Your task to perform on an android device: open sync settings in chrome Image 0: 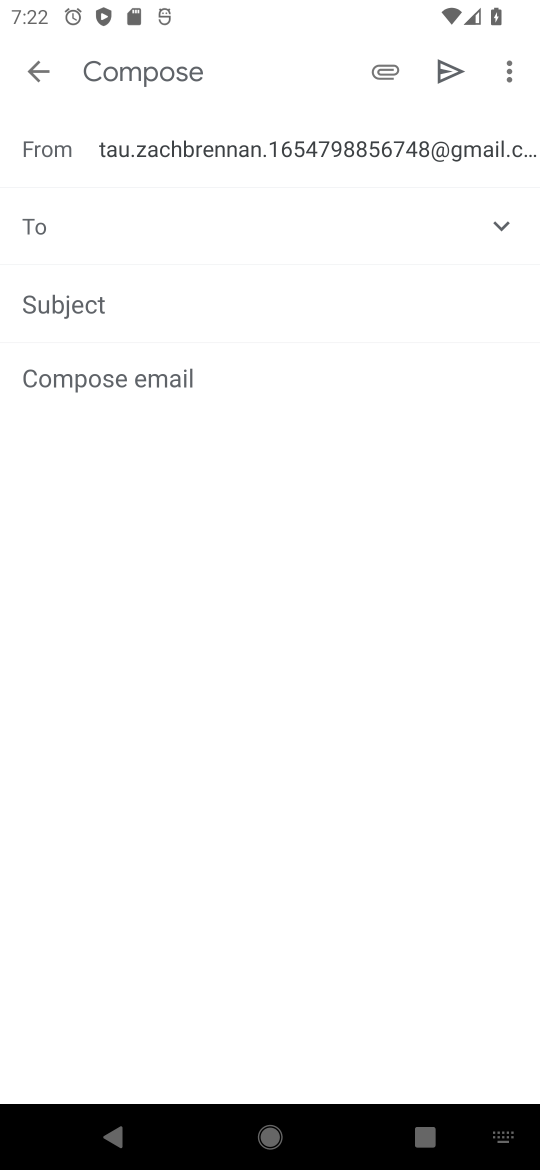
Step 0: press home button
Your task to perform on an android device: open sync settings in chrome Image 1: 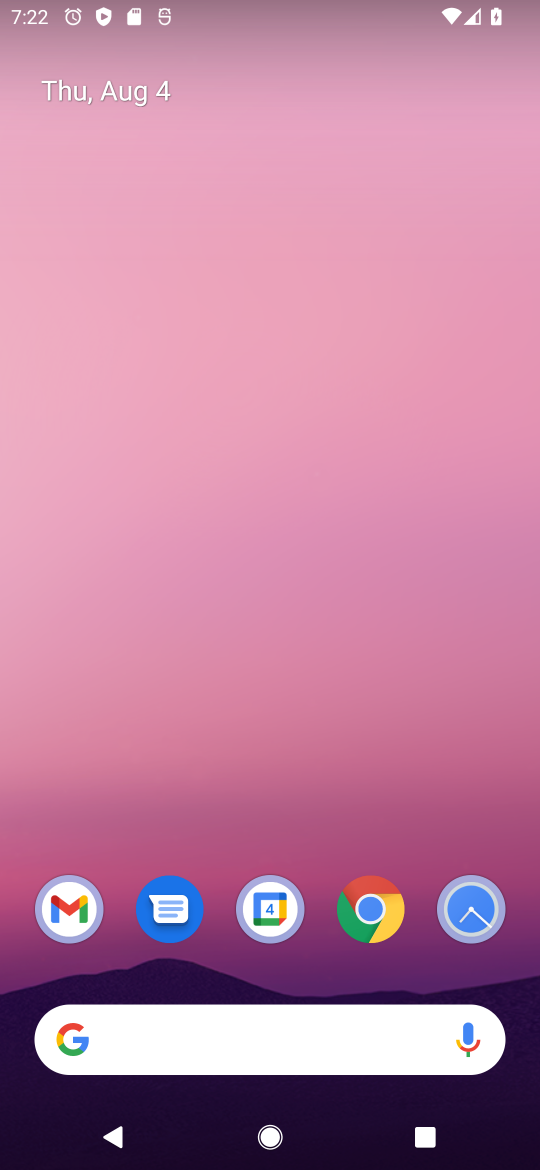
Step 1: drag from (360, 775) to (237, 58)
Your task to perform on an android device: open sync settings in chrome Image 2: 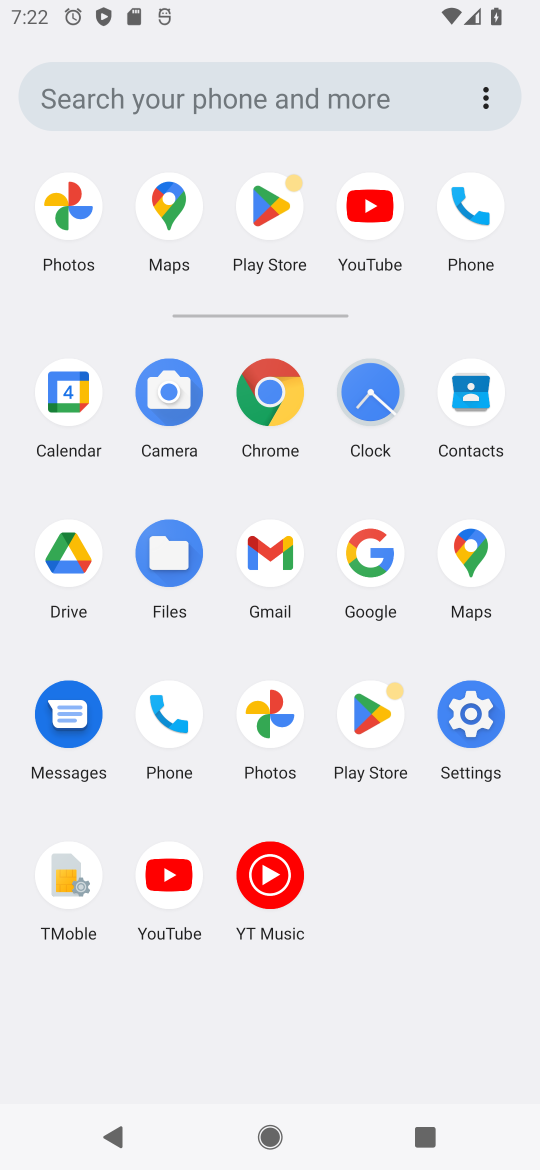
Step 2: click (274, 405)
Your task to perform on an android device: open sync settings in chrome Image 3: 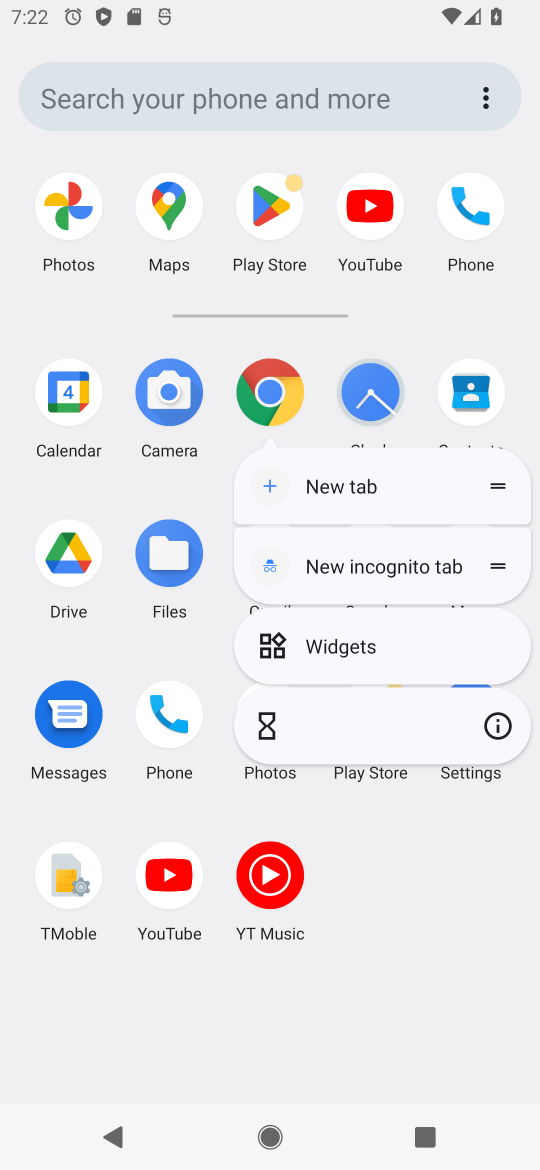
Step 3: click (248, 381)
Your task to perform on an android device: open sync settings in chrome Image 4: 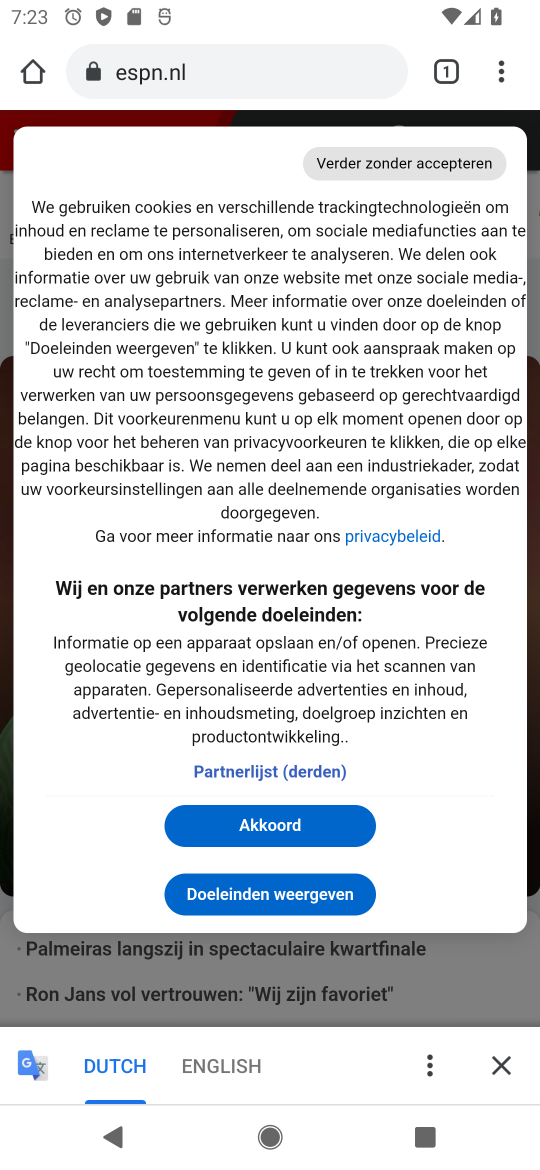
Step 4: drag from (494, 56) to (296, 991)
Your task to perform on an android device: open sync settings in chrome Image 5: 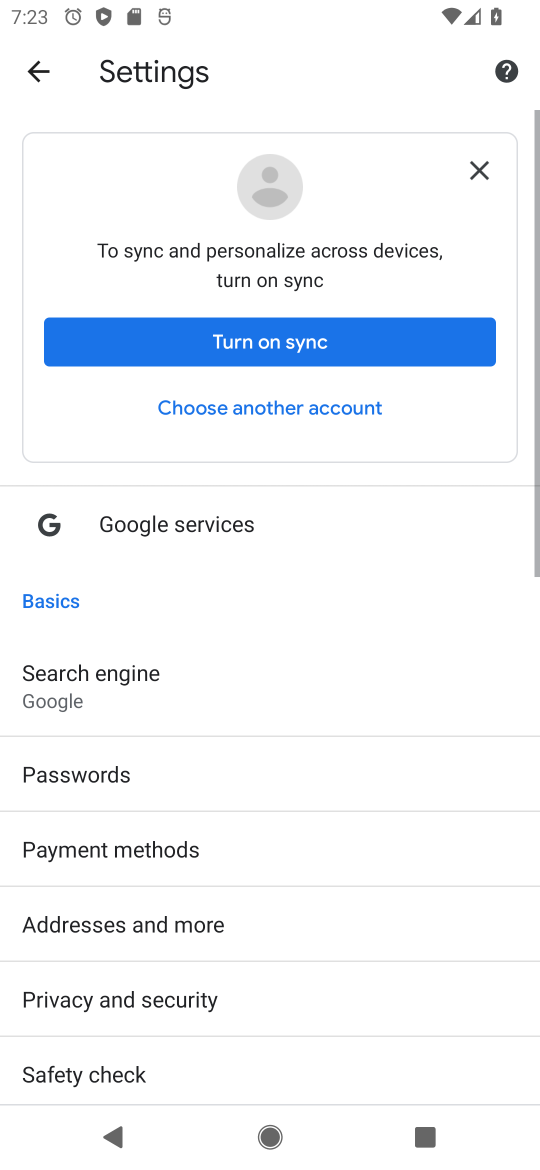
Step 5: drag from (295, 984) to (255, 390)
Your task to perform on an android device: open sync settings in chrome Image 6: 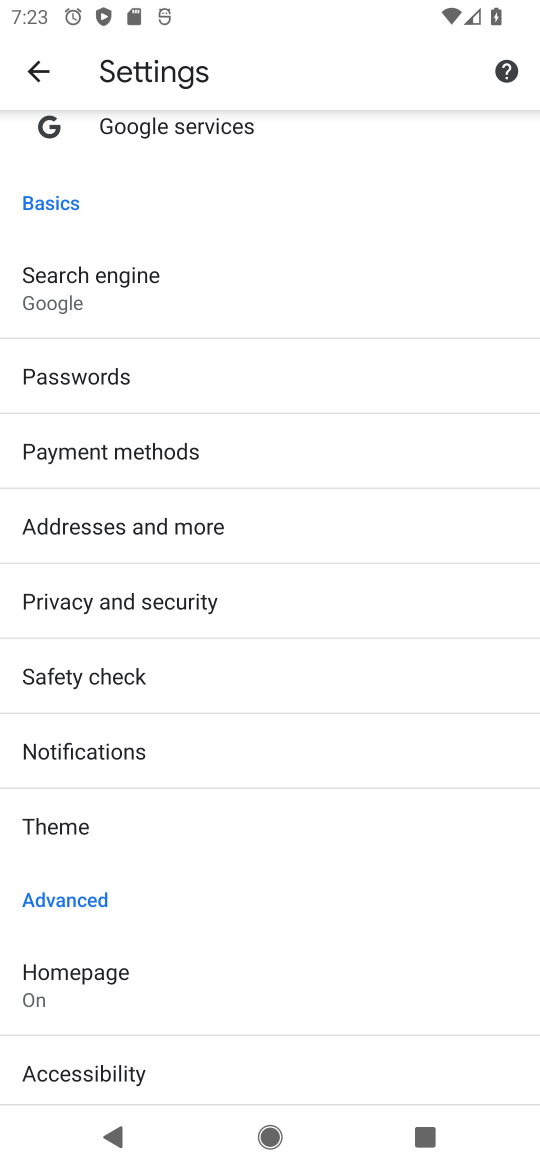
Step 6: drag from (204, 872) to (275, 270)
Your task to perform on an android device: open sync settings in chrome Image 7: 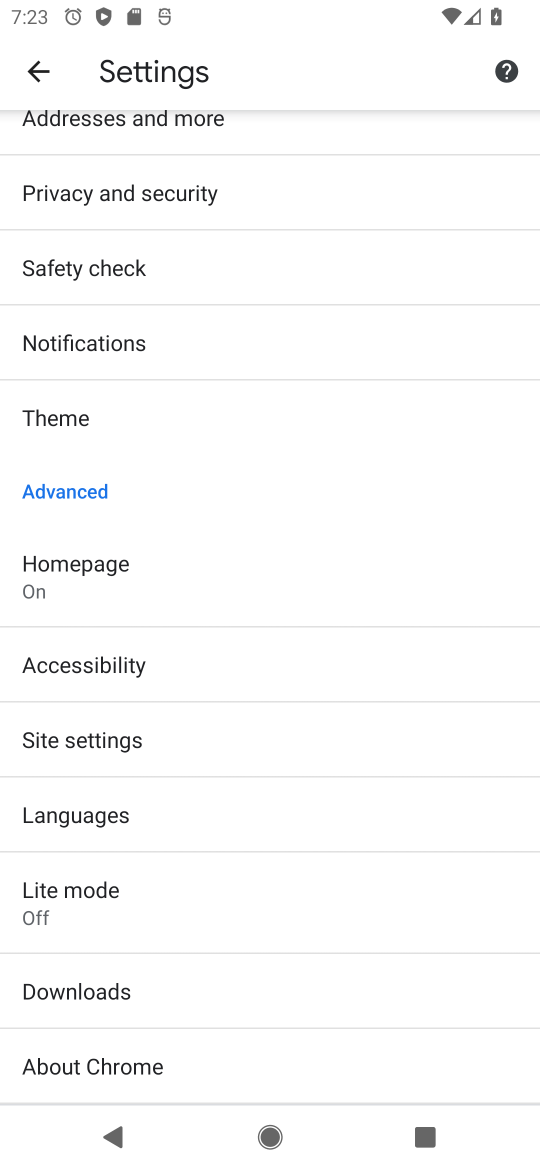
Step 7: click (96, 753)
Your task to perform on an android device: open sync settings in chrome Image 8: 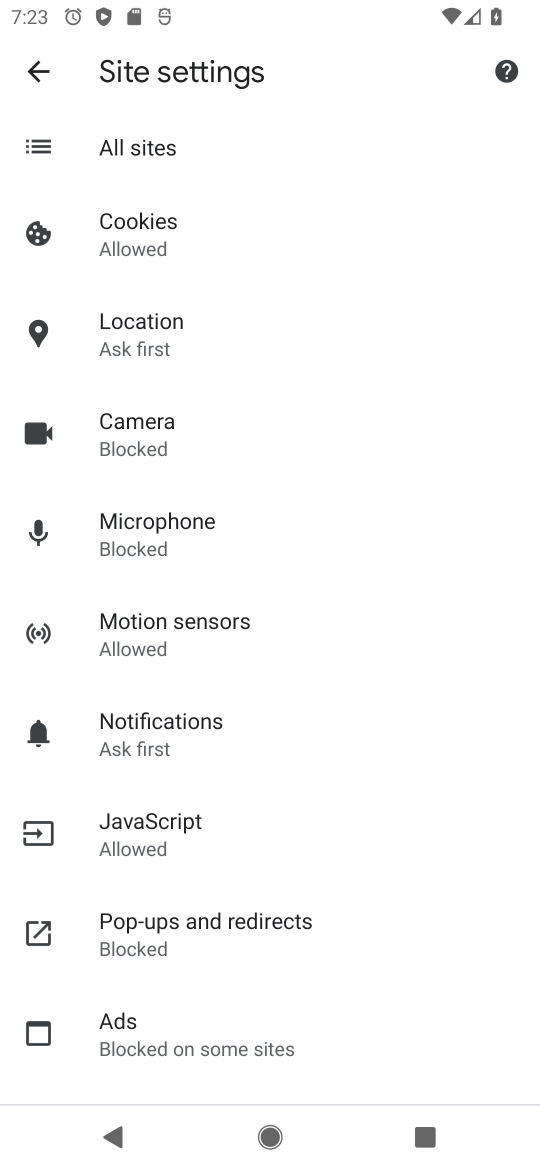
Step 8: drag from (244, 922) to (274, 368)
Your task to perform on an android device: open sync settings in chrome Image 9: 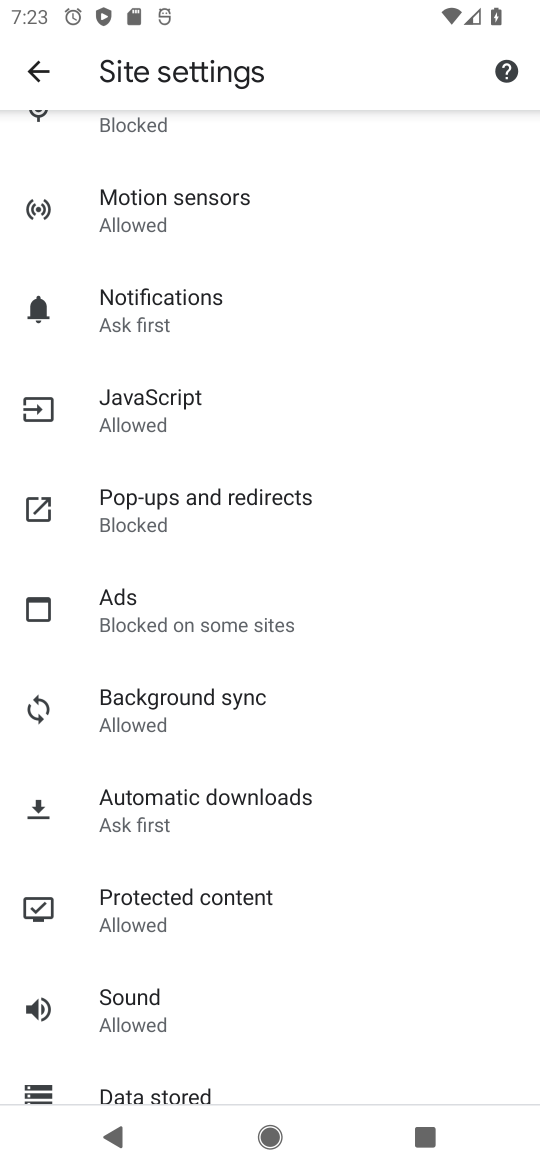
Step 9: click (160, 733)
Your task to perform on an android device: open sync settings in chrome Image 10: 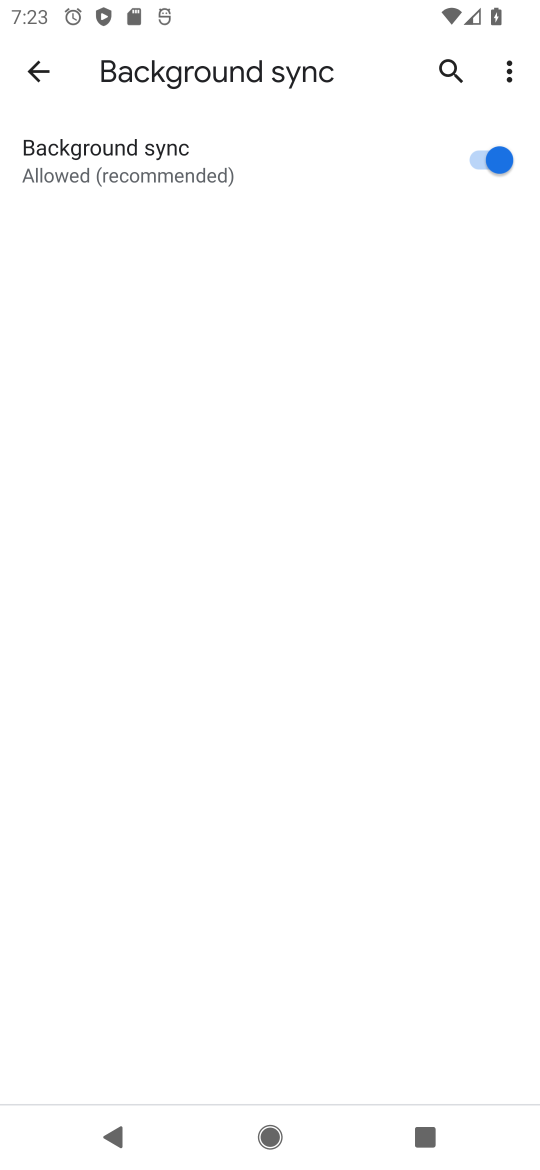
Step 10: task complete